Your task to perform on an android device: Open wifi settings Image 0: 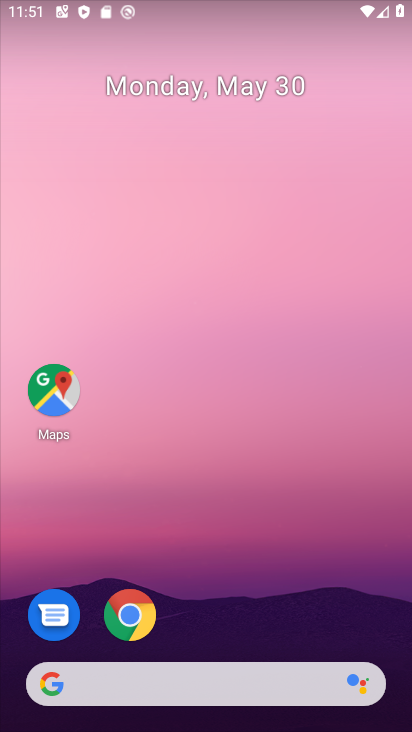
Step 0: drag from (220, 594) to (247, 373)
Your task to perform on an android device: Open wifi settings Image 1: 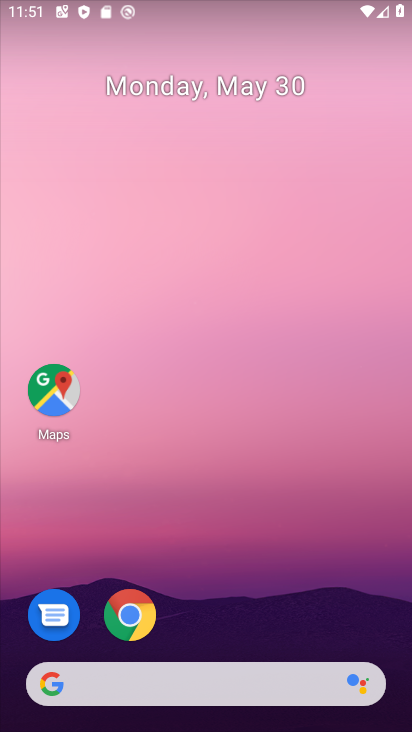
Step 1: drag from (224, 599) to (340, 22)
Your task to perform on an android device: Open wifi settings Image 2: 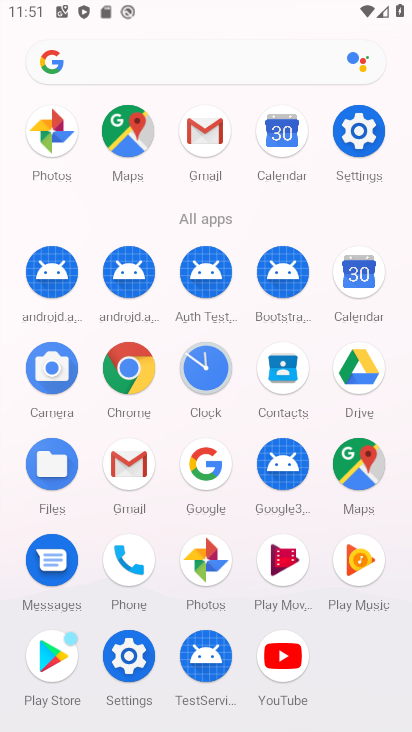
Step 2: click (367, 154)
Your task to perform on an android device: Open wifi settings Image 3: 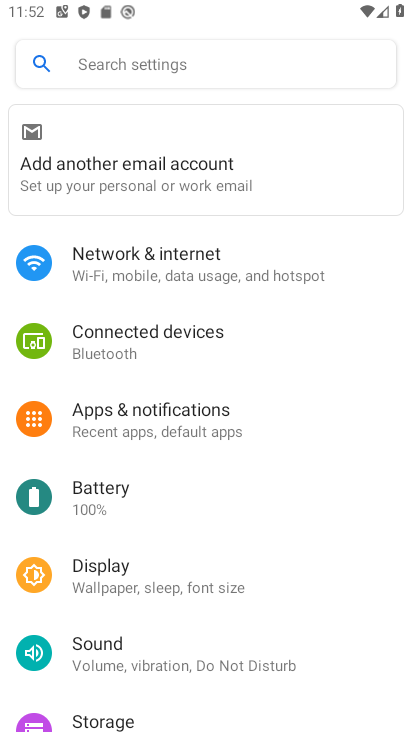
Step 3: click (176, 266)
Your task to perform on an android device: Open wifi settings Image 4: 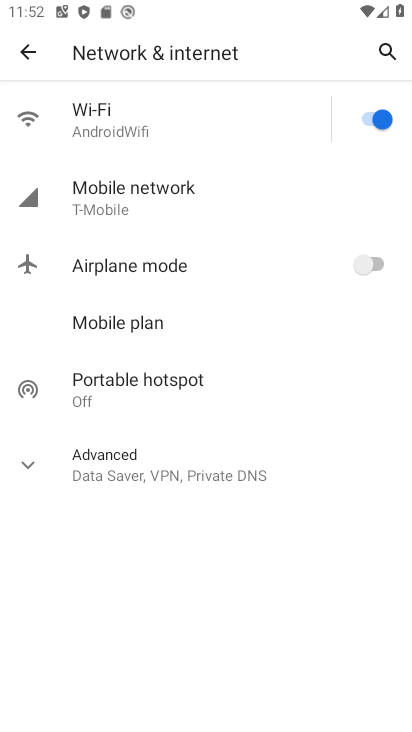
Step 4: click (161, 134)
Your task to perform on an android device: Open wifi settings Image 5: 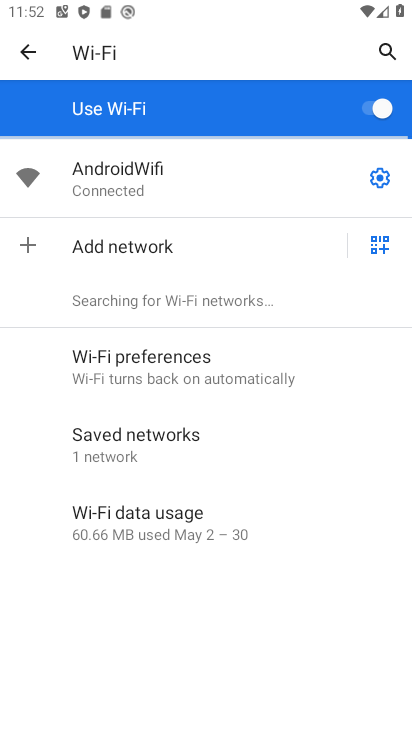
Step 5: task complete